Your task to perform on an android device: Open Maps and search for coffee Image 0: 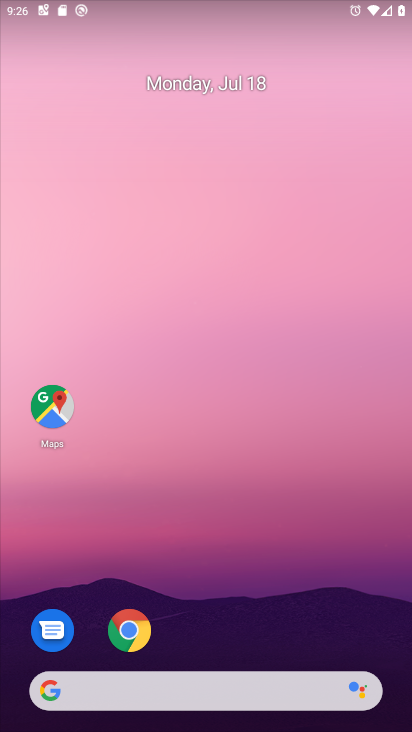
Step 0: click (72, 419)
Your task to perform on an android device: Open Maps and search for coffee Image 1: 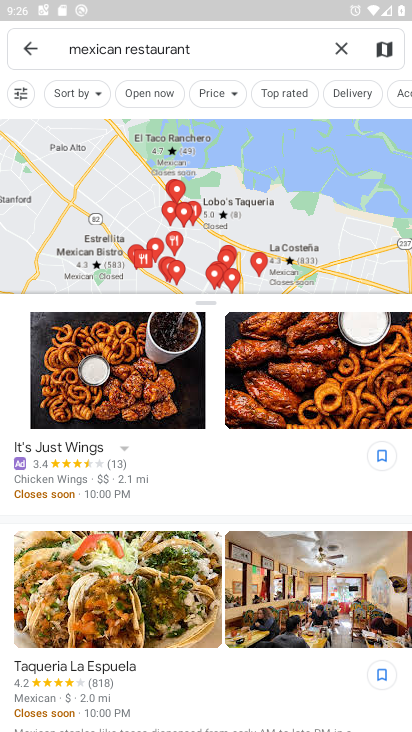
Step 1: click (329, 50)
Your task to perform on an android device: Open Maps and search for coffee Image 2: 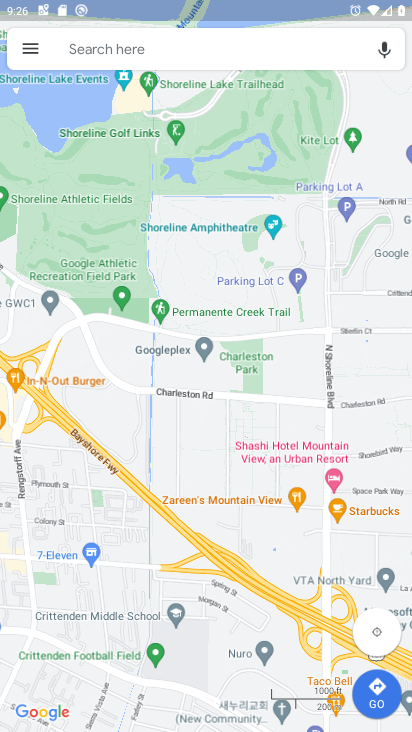
Step 2: click (272, 48)
Your task to perform on an android device: Open Maps and search for coffee Image 3: 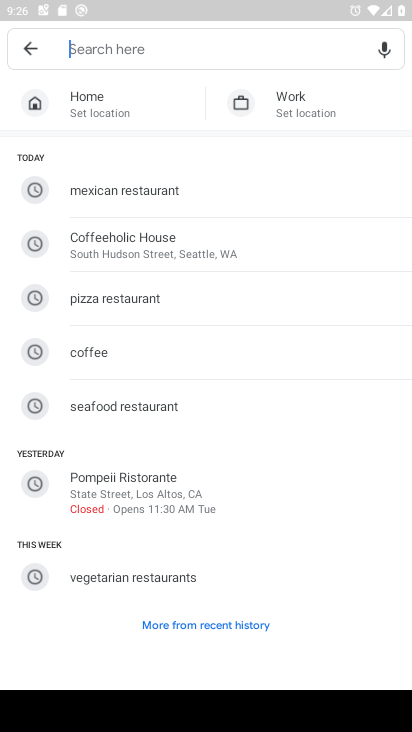
Step 3: type "coffee"
Your task to perform on an android device: Open Maps and search for coffee Image 4: 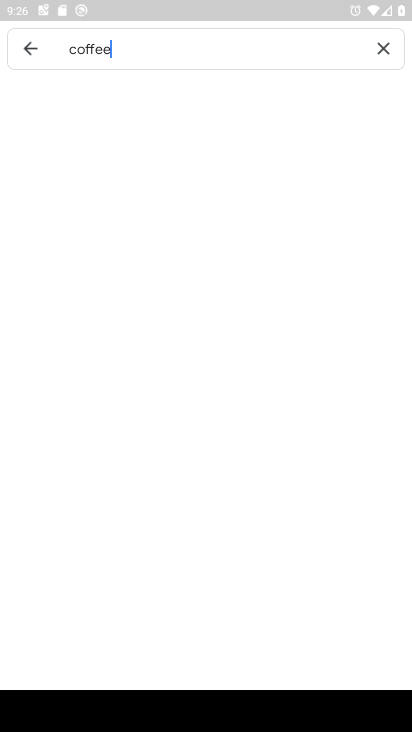
Step 4: type ""
Your task to perform on an android device: Open Maps and search for coffee Image 5: 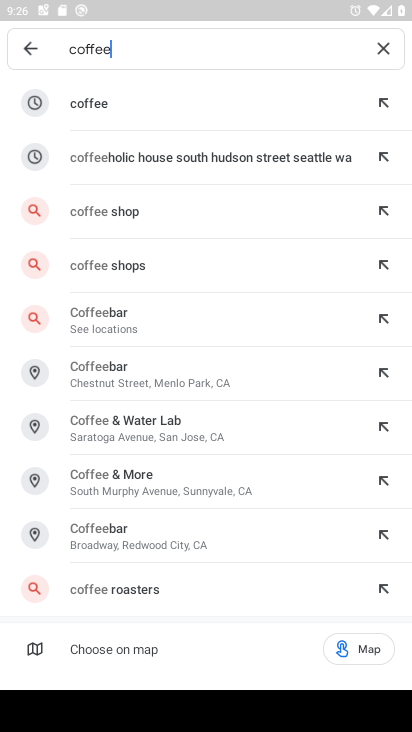
Step 5: click (61, 103)
Your task to perform on an android device: Open Maps and search for coffee Image 6: 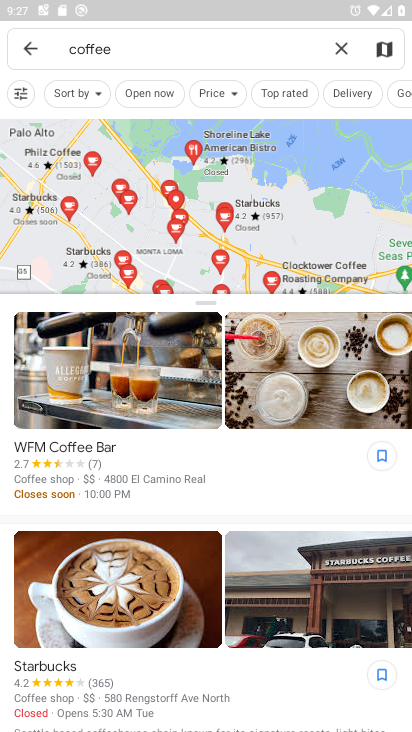
Step 6: task complete